Your task to perform on an android device: install app "NewsBreak: Local News & Alerts" Image 0: 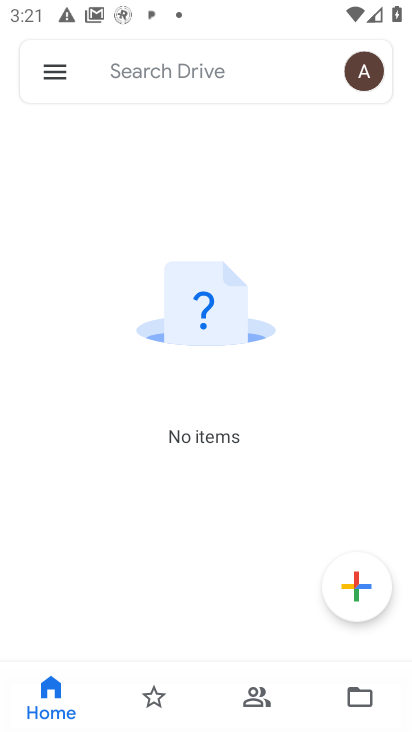
Step 0: press home button
Your task to perform on an android device: install app "NewsBreak: Local News & Alerts" Image 1: 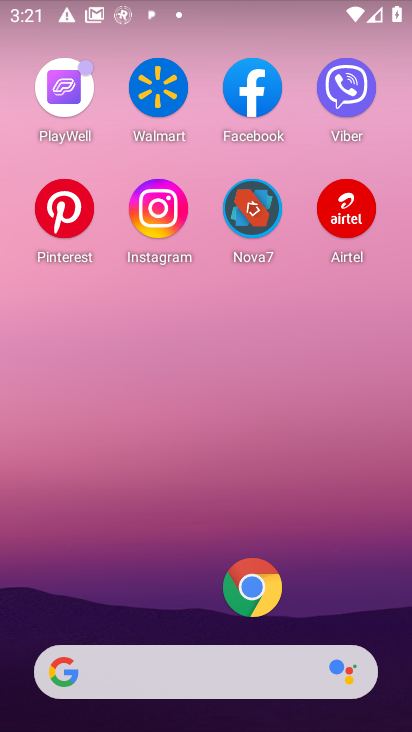
Step 1: drag from (172, 581) to (172, 245)
Your task to perform on an android device: install app "NewsBreak: Local News & Alerts" Image 2: 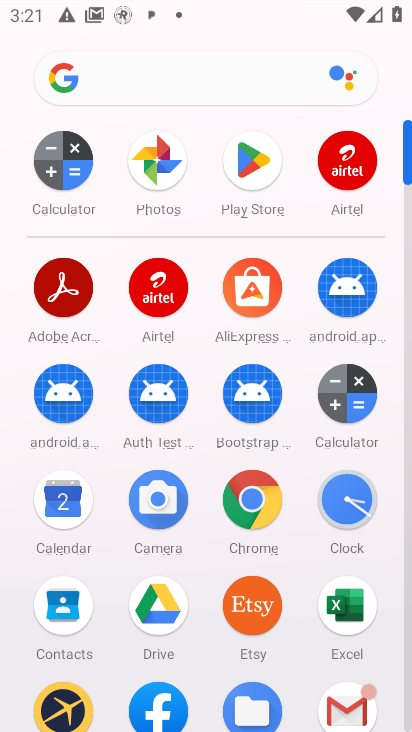
Step 2: click (238, 177)
Your task to perform on an android device: install app "NewsBreak: Local News & Alerts" Image 3: 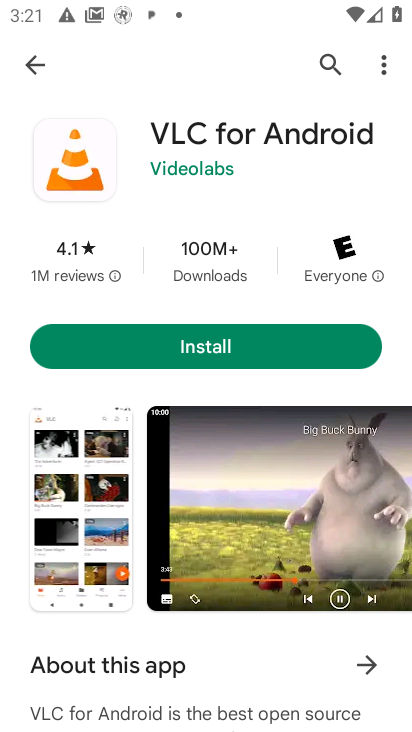
Step 3: click (328, 69)
Your task to perform on an android device: install app "NewsBreak: Local News & Alerts" Image 4: 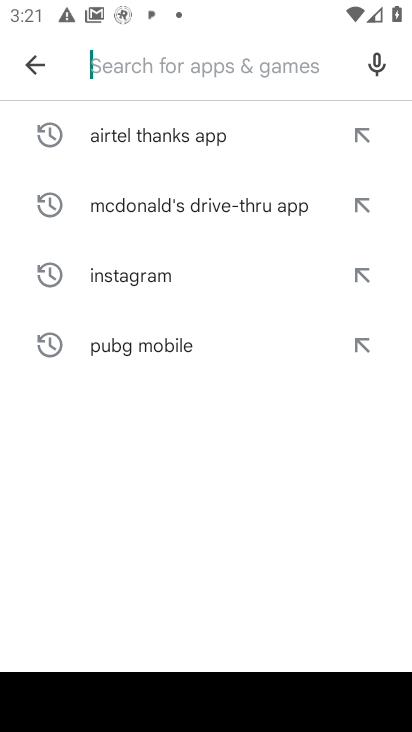
Step 4: type "NewsBreak: Local News & Alerts"
Your task to perform on an android device: install app "NewsBreak: Local News & Alerts" Image 5: 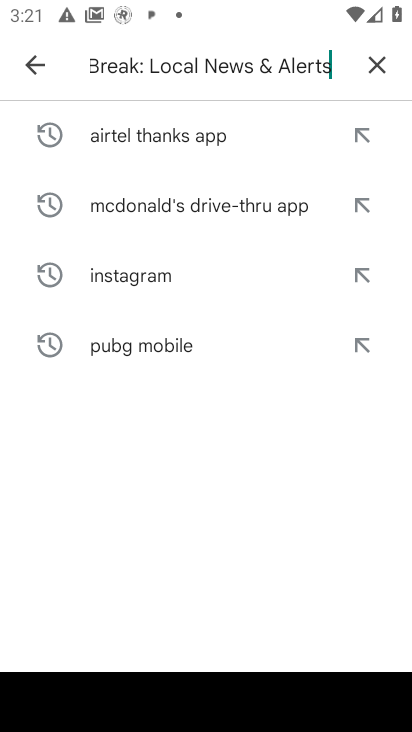
Step 5: type ""
Your task to perform on an android device: install app "NewsBreak: Local News & Alerts" Image 6: 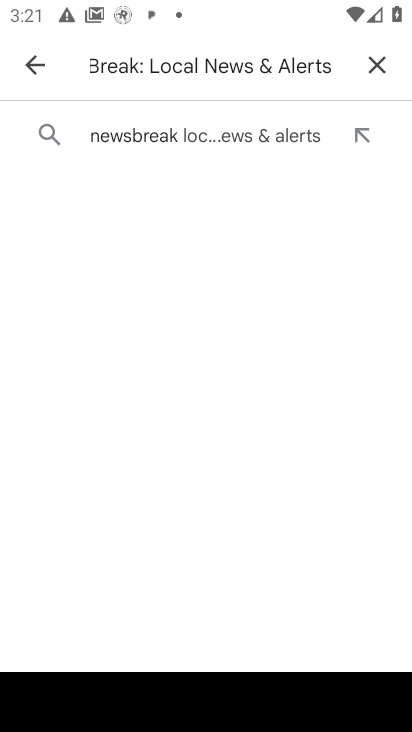
Step 6: click (235, 153)
Your task to perform on an android device: install app "NewsBreak: Local News & Alerts" Image 7: 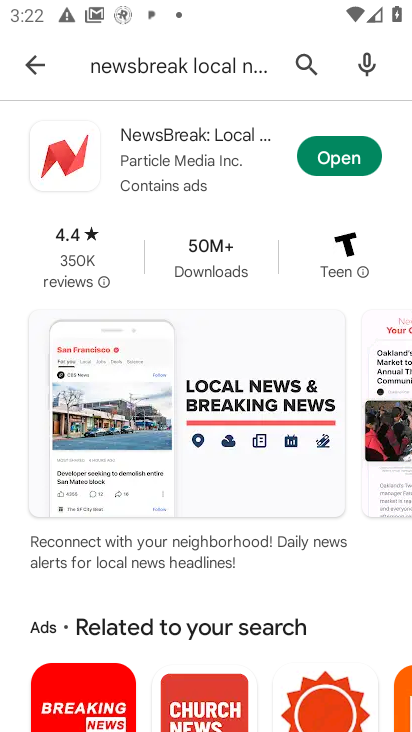
Step 7: task complete